Your task to perform on an android device: What's on my calendar tomorrow? Image 0: 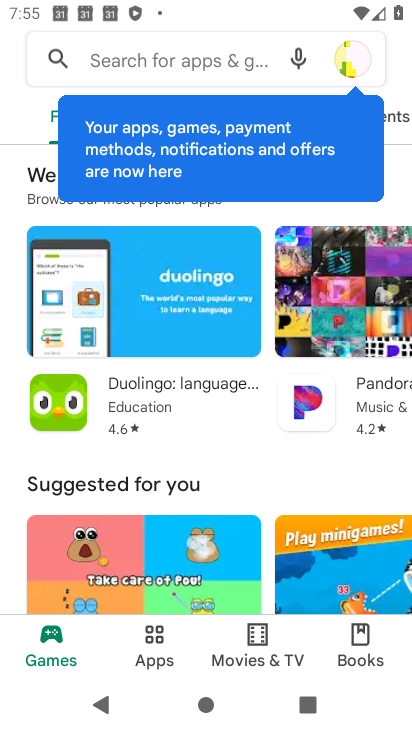
Step 0: press home button
Your task to perform on an android device: What's on my calendar tomorrow? Image 1: 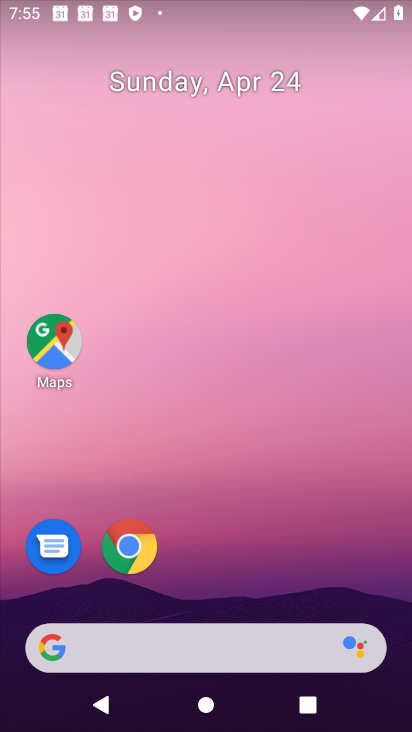
Step 1: drag from (297, 596) to (290, 39)
Your task to perform on an android device: What's on my calendar tomorrow? Image 2: 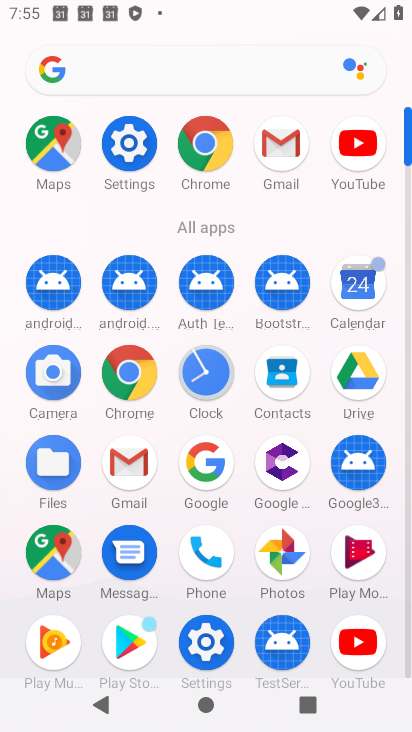
Step 2: click (352, 302)
Your task to perform on an android device: What's on my calendar tomorrow? Image 3: 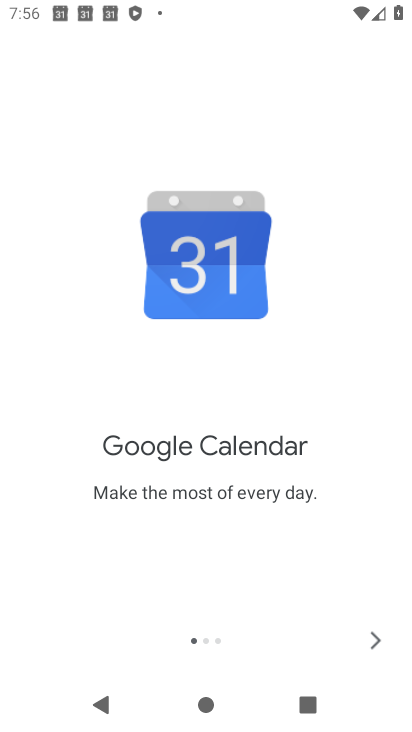
Step 3: click (379, 645)
Your task to perform on an android device: What's on my calendar tomorrow? Image 4: 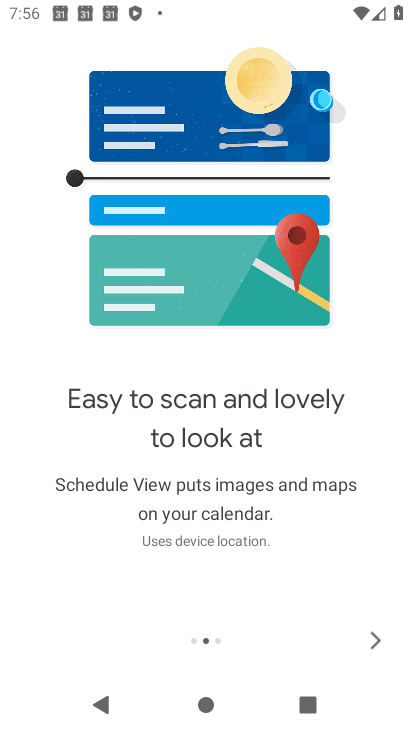
Step 4: click (379, 645)
Your task to perform on an android device: What's on my calendar tomorrow? Image 5: 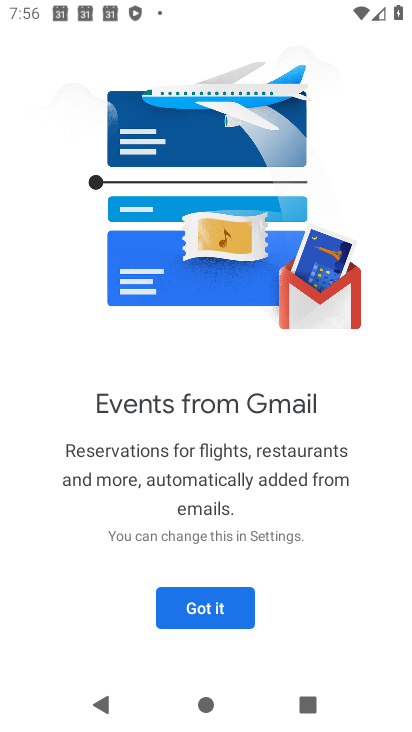
Step 5: click (178, 609)
Your task to perform on an android device: What's on my calendar tomorrow? Image 6: 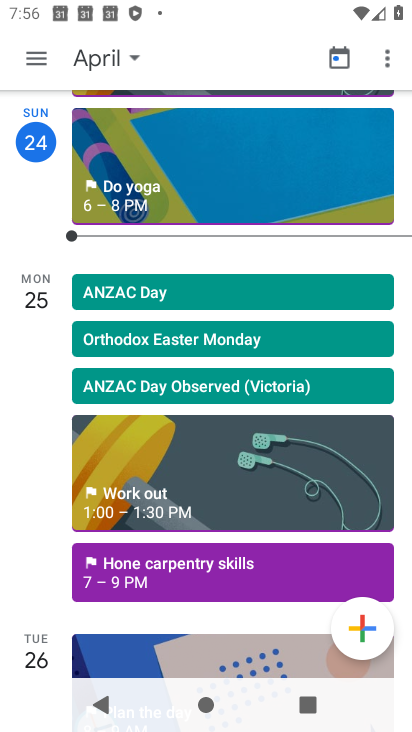
Step 6: click (36, 304)
Your task to perform on an android device: What's on my calendar tomorrow? Image 7: 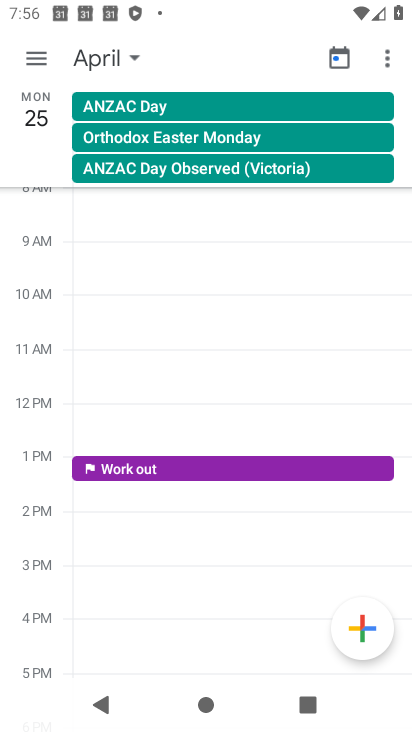
Step 7: click (107, 64)
Your task to perform on an android device: What's on my calendar tomorrow? Image 8: 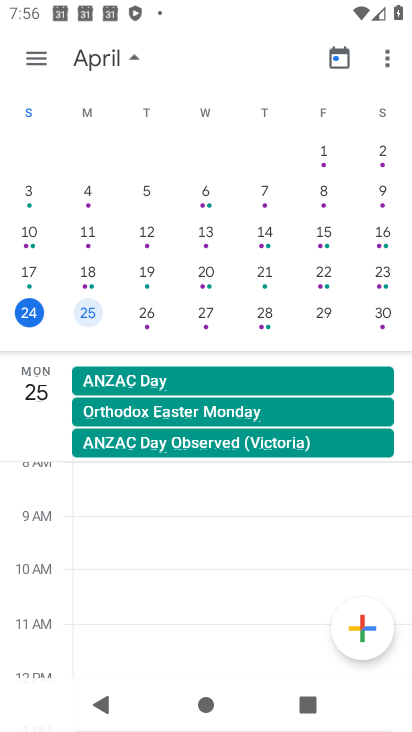
Step 8: click (152, 316)
Your task to perform on an android device: What's on my calendar tomorrow? Image 9: 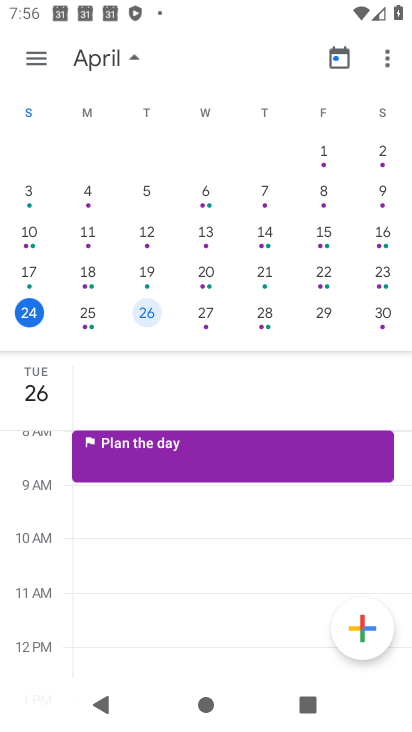
Step 9: click (321, 384)
Your task to perform on an android device: What's on my calendar tomorrow? Image 10: 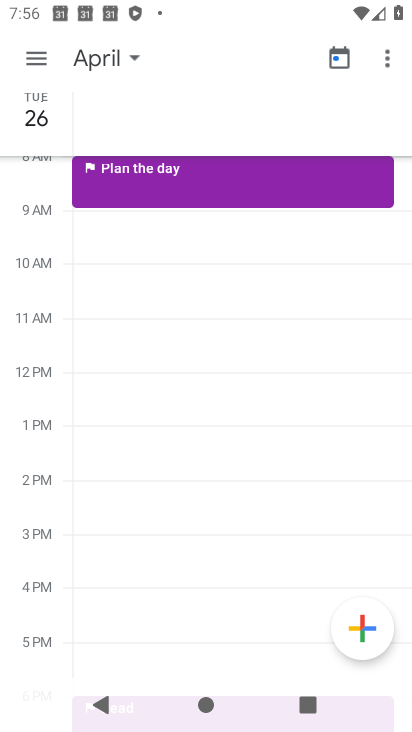
Step 10: task complete